Your task to perform on an android device: Go to privacy settings Image 0: 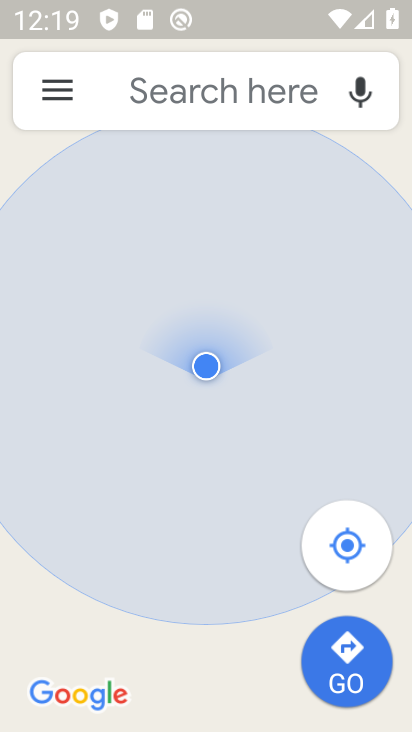
Step 0: press home button
Your task to perform on an android device: Go to privacy settings Image 1: 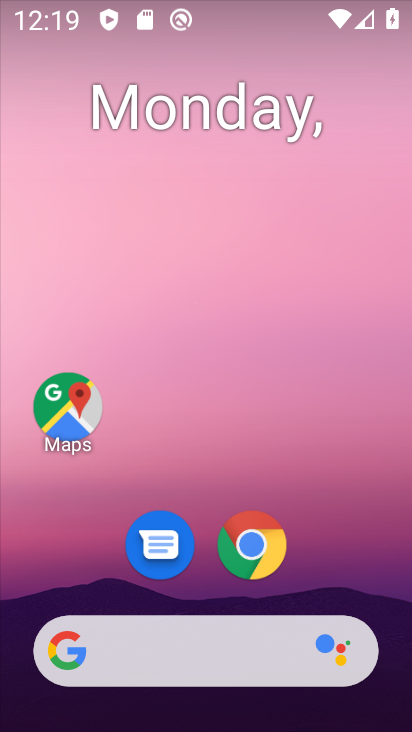
Step 1: click (250, 552)
Your task to perform on an android device: Go to privacy settings Image 2: 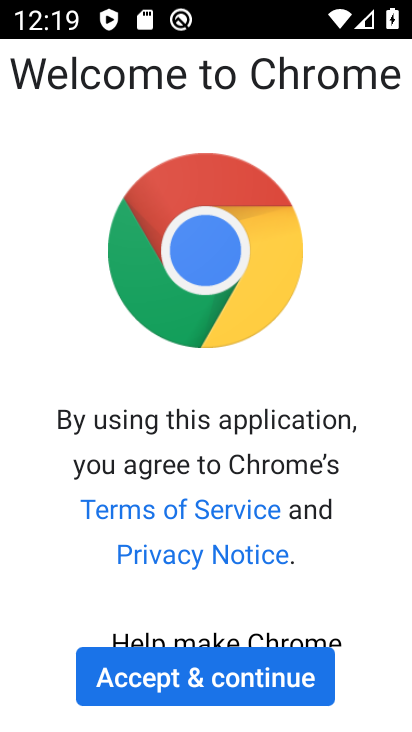
Step 2: click (191, 691)
Your task to perform on an android device: Go to privacy settings Image 3: 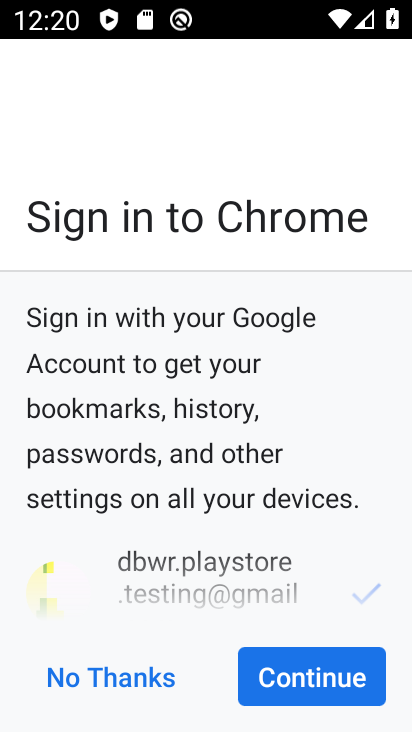
Step 3: click (288, 680)
Your task to perform on an android device: Go to privacy settings Image 4: 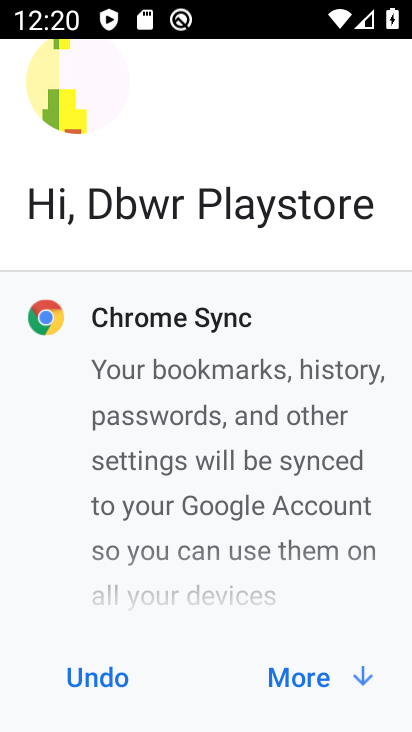
Step 4: click (288, 680)
Your task to perform on an android device: Go to privacy settings Image 5: 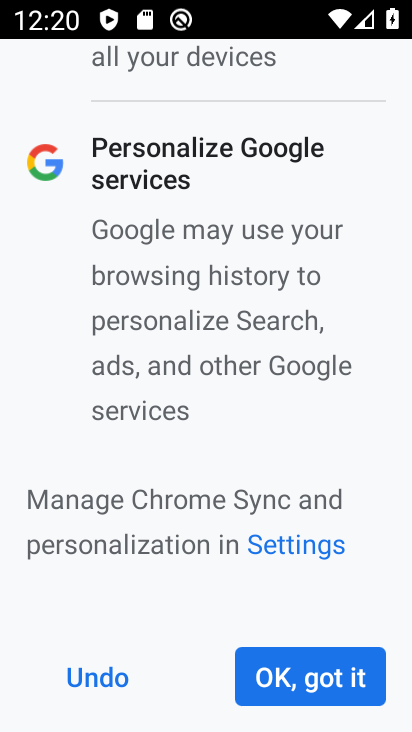
Step 5: click (288, 680)
Your task to perform on an android device: Go to privacy settings Image 6: 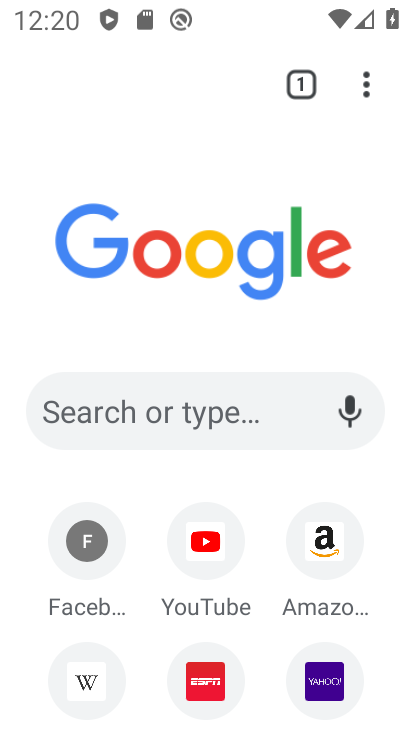
Step 6: press home button
Your task to perform on an android device: Go to privacy settings Image 7: 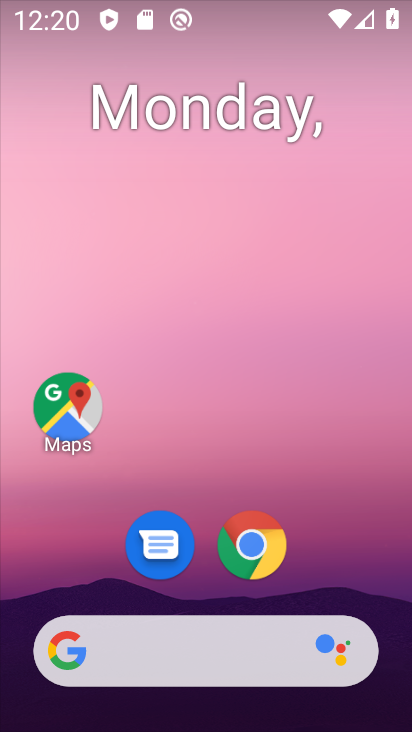
Step 7: click (283, 361)
Your task to perform on an android device: Go to privacy settings Image 8: 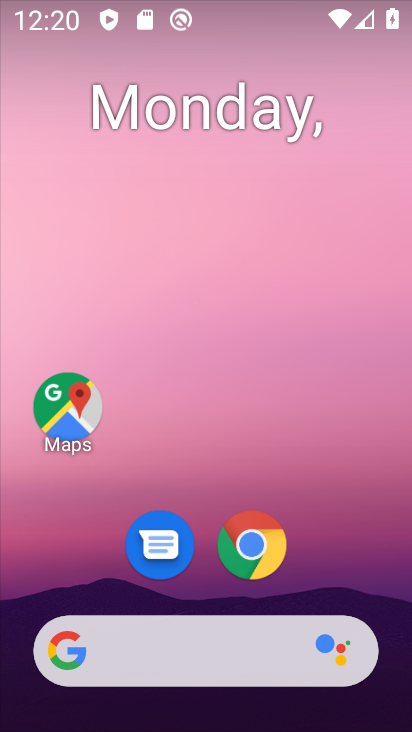
Step 8: drag from (332, 534) to (195, 114)
Your task to perform on an android device: Go to privacy settings Image 9: 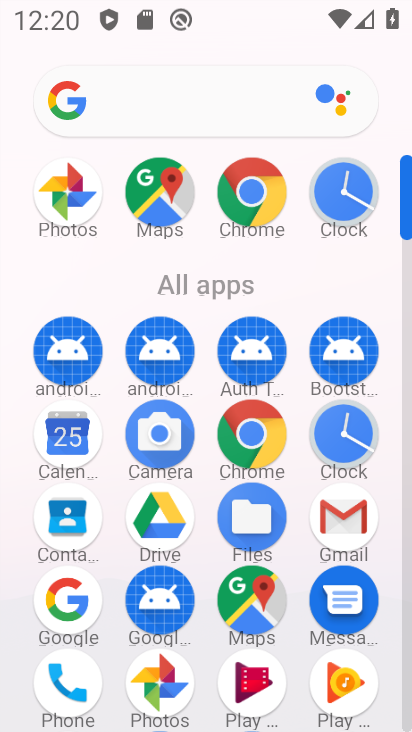
Step 9: drag from (293, 565) to (328, 181)
Your task to perform on an android device: Go to privacy settings Image 10: 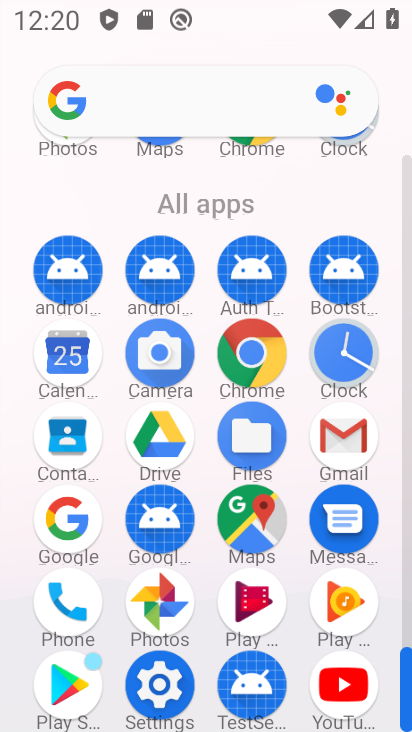
Step 10: click (167, 672)
Your task to perform on an android device: Go to privacy settings Image 11: 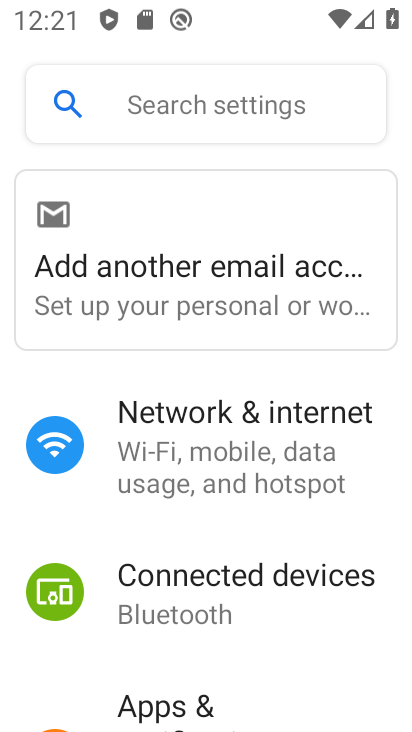
Step 11: drag from (275, 677) to (281, 309)
Your task to perform on an android device: Go to privacy settings Image 12: 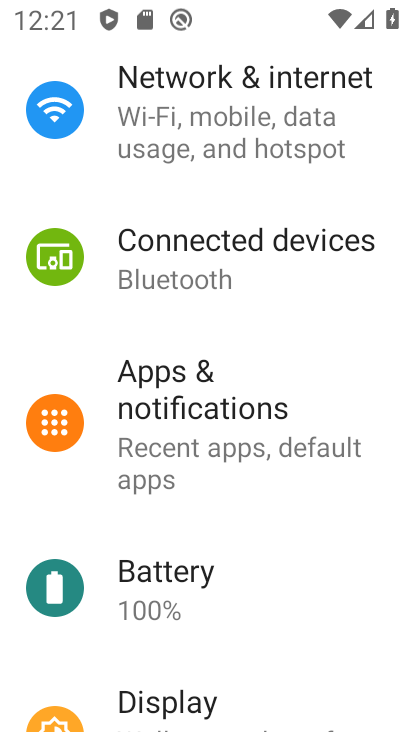
Step 12: drag from (268, 615) to (297, 307)
Your task to perform on an android device: Go to privacy settings Image 13: 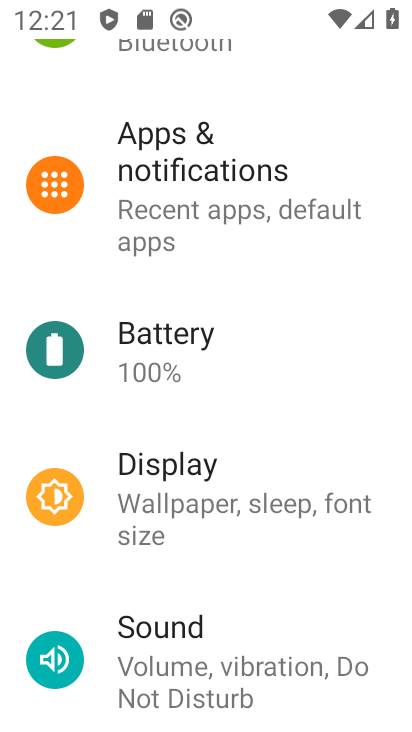
Step 13: drag from (280, 594) to (289, 188)
Your task to perform on an android device: Go to privacy settings Image 14: 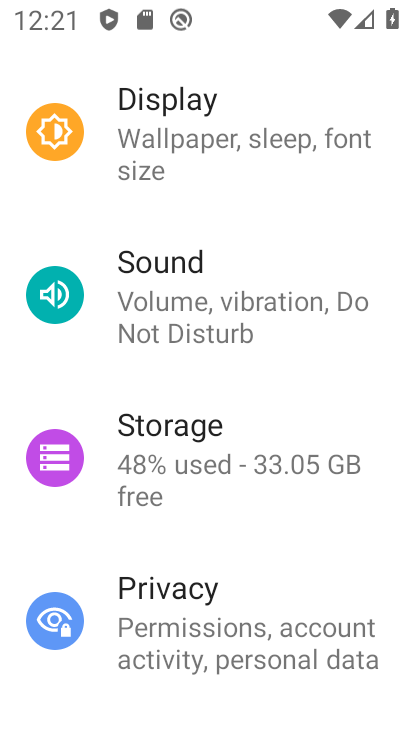
Step 14: click (228, 626)
Your task to perform on an android device: Go to privacy settings Image 15: 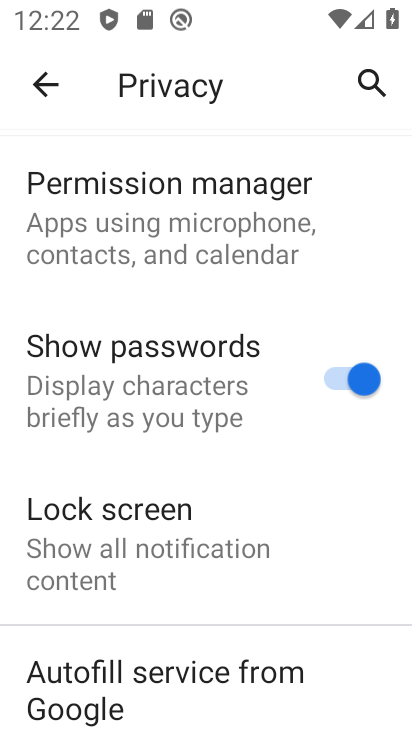
Step 15: task complete